Your task to perform on an android device: Turn off the flashlight Image 0: 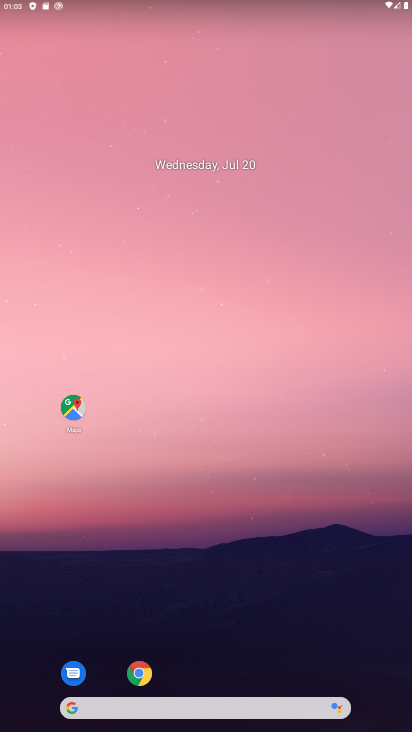
Step 0: drag from (186, 674) to (200, 201)
Your task to perform on an android device: Turn off the flashlight Image 1: 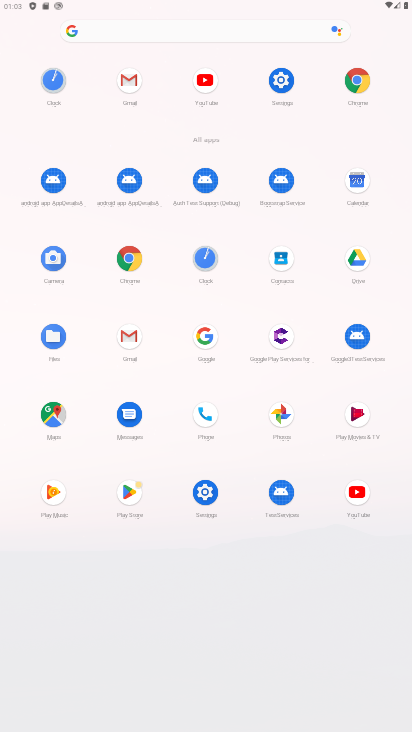
Step 1: click (260, 87)
Your task to perform on an android device: Turn off the flashlight Image 2: 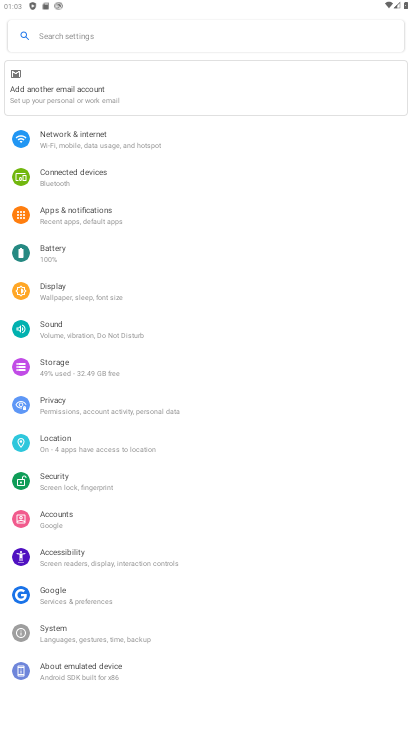
Step 2: task complete